Your task to perform on an android device: toggle pop-ups in chrome Image 0: 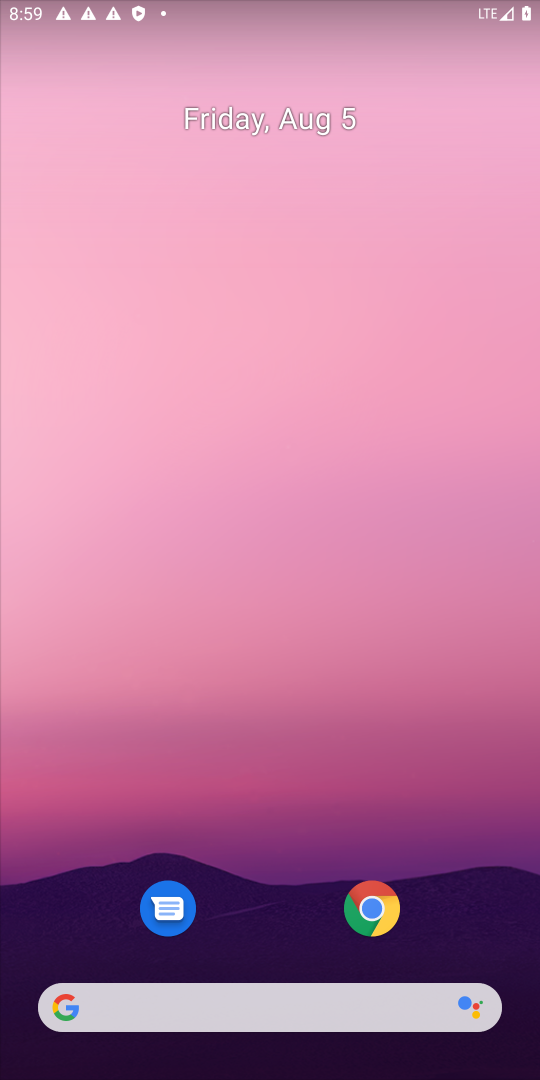
Step 0: click (358, 905)
Your task to perform on an android device: toggle pop-ups in chrome Image 1: 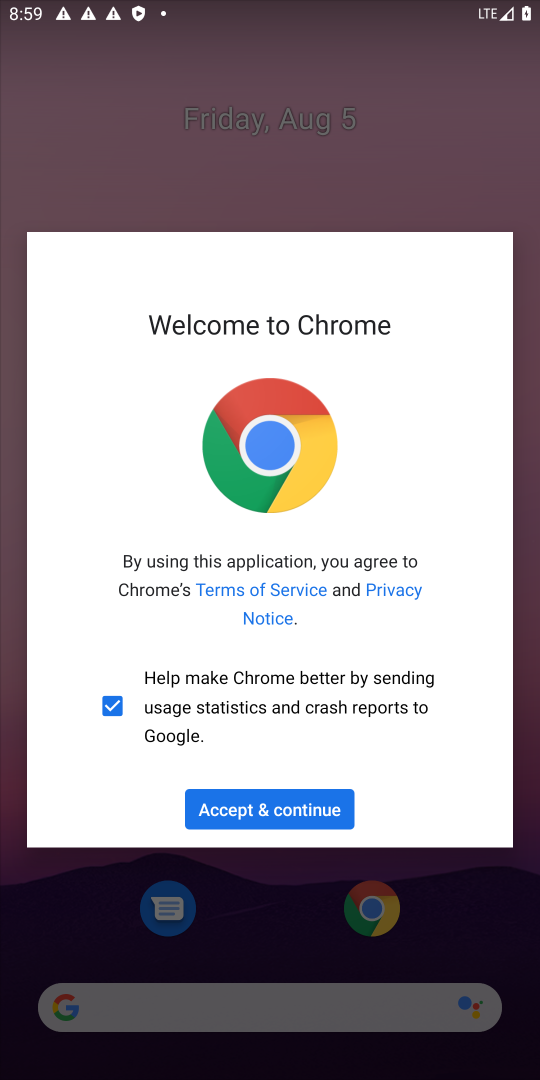
Step 1: click (258, 806)
Your task to perform on an android device: toggle pop-ups in chrome Image 2: 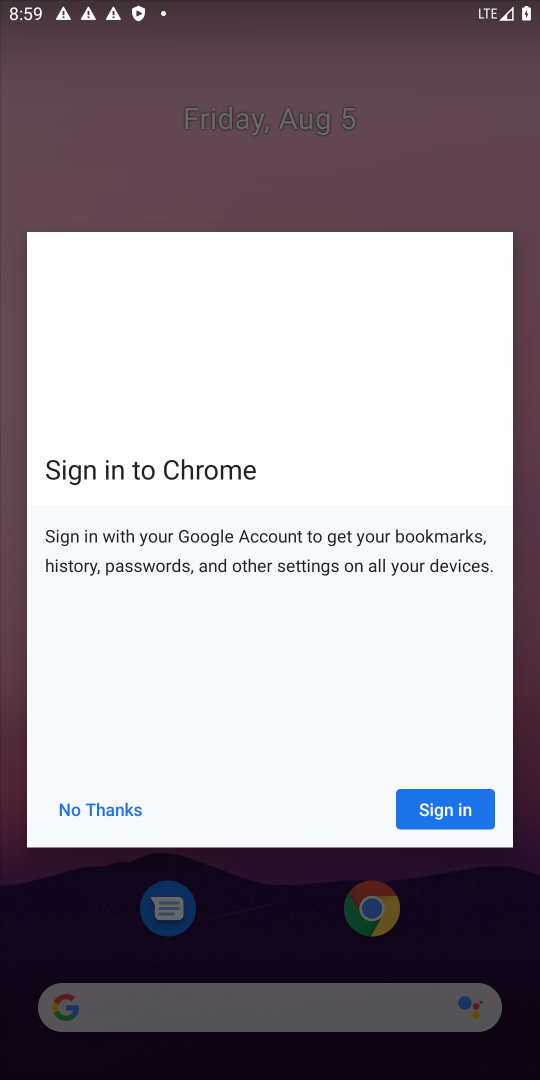
Step 2: click (419, 798)
Your task to perform on an android device: toggle pop-ups in chrome Image 3: 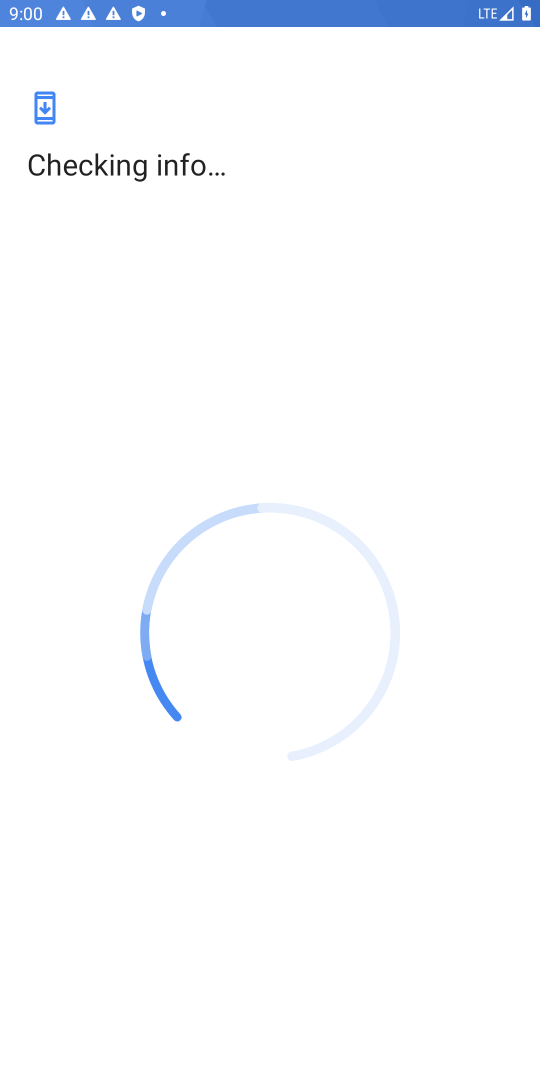
Step 3: click (440, 812)
Your task to perform on an android device: toggle pop-ups in chrome Image 4: 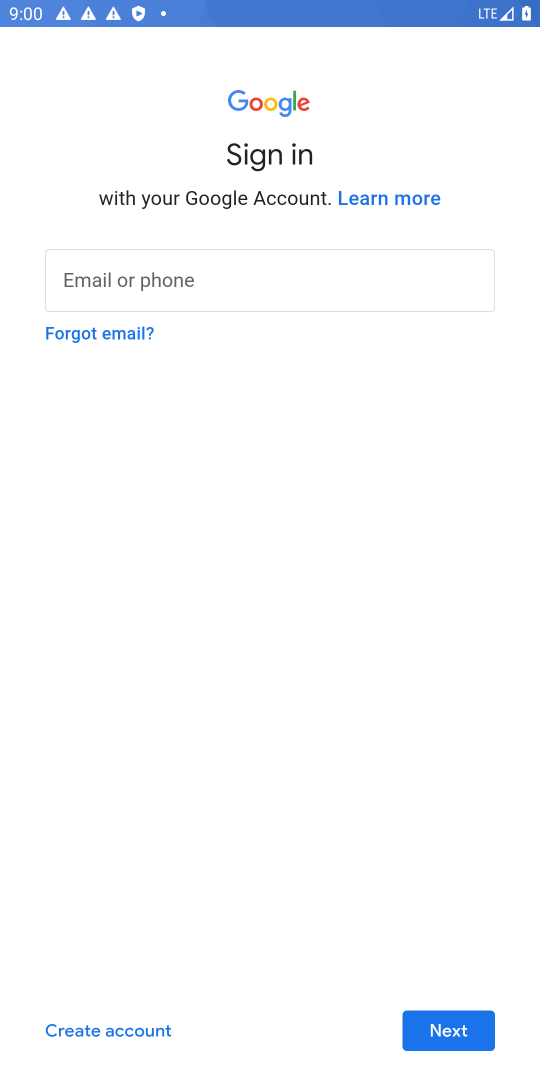
Step 4: task complete